Your task to perform on an android device: Open Chrome and go to settings Image 0: 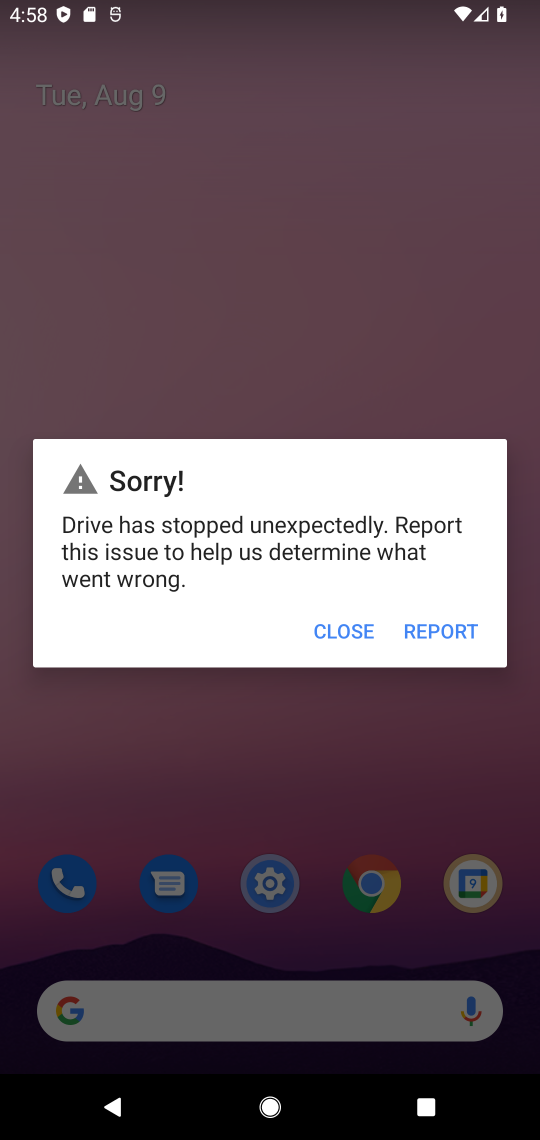
Step 0: click (332, 630)
Your task to perform on an android device: Open Chrome and go to settings Image 1: 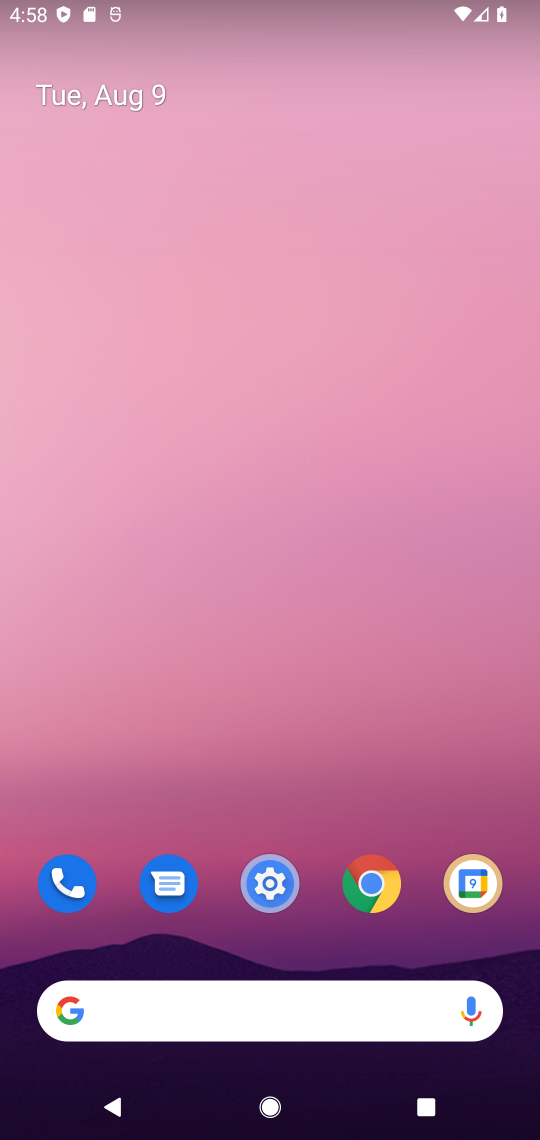
Step 1: click (360, 918)
Your task to perform on an android device: Open Chrome and go to settings Image 2: 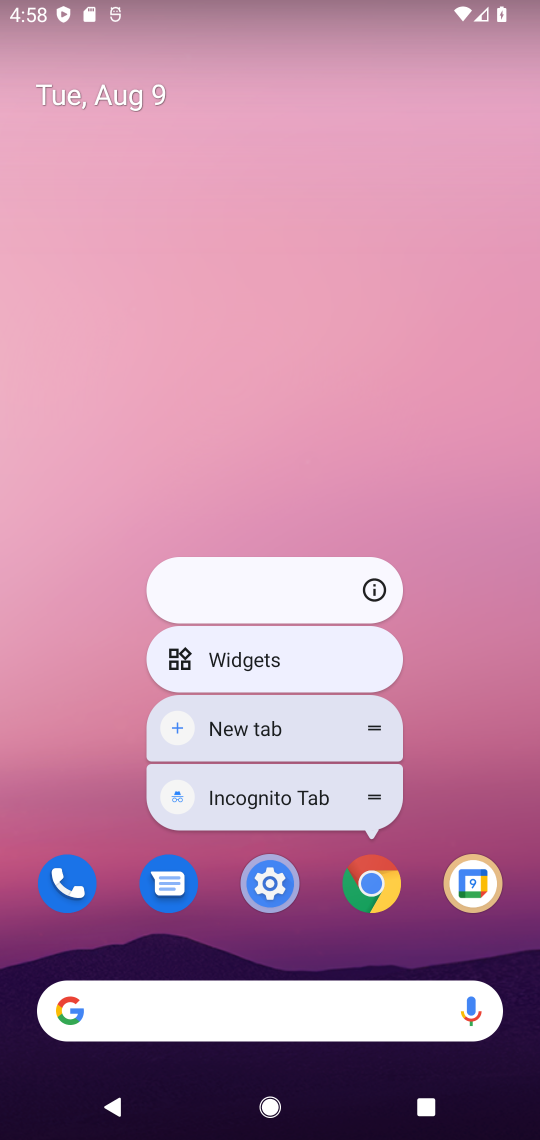
Step 2: click (360, 918)
Your task to perform on an android device: Open Chrome and go to settings Image 3: 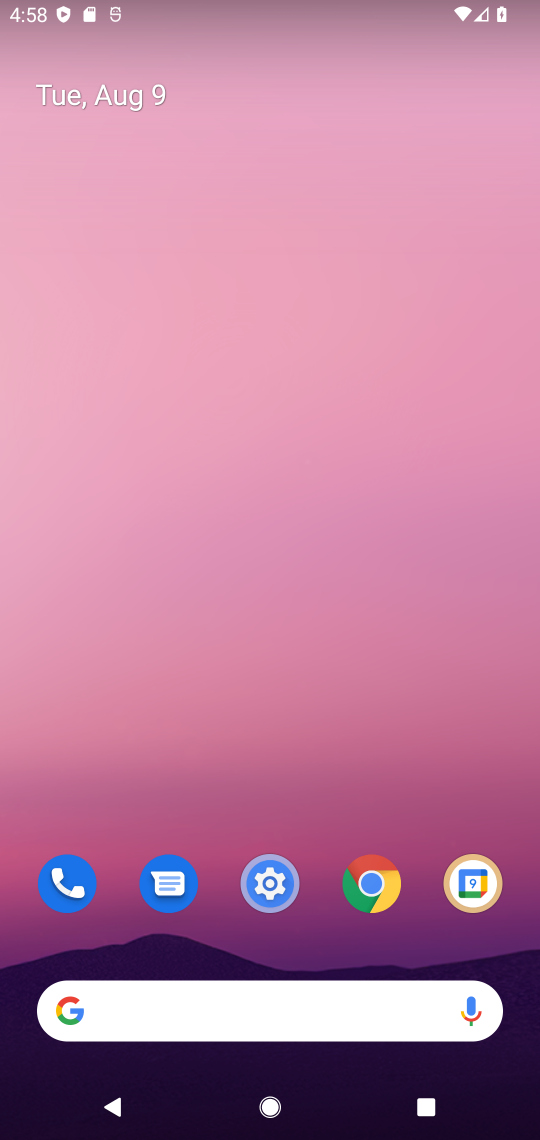
Step 3: click (375, 886)
Your task to perform on an android device: Open Chrome and go to settings Image 4: 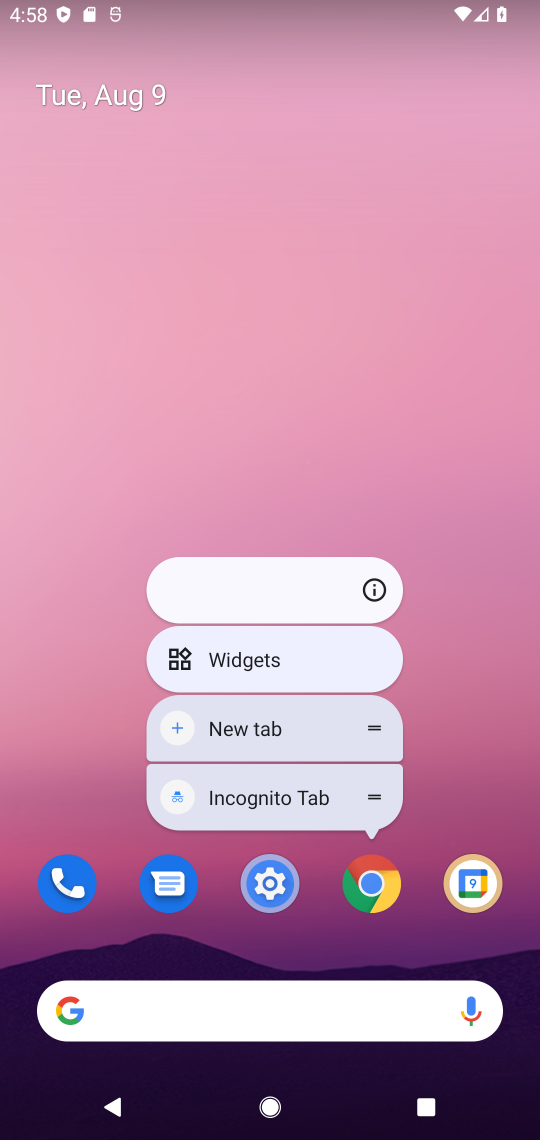
Step 4: click (375, 886)
Your task to perform on an android device: Open Chrome and go to settings Image 5: 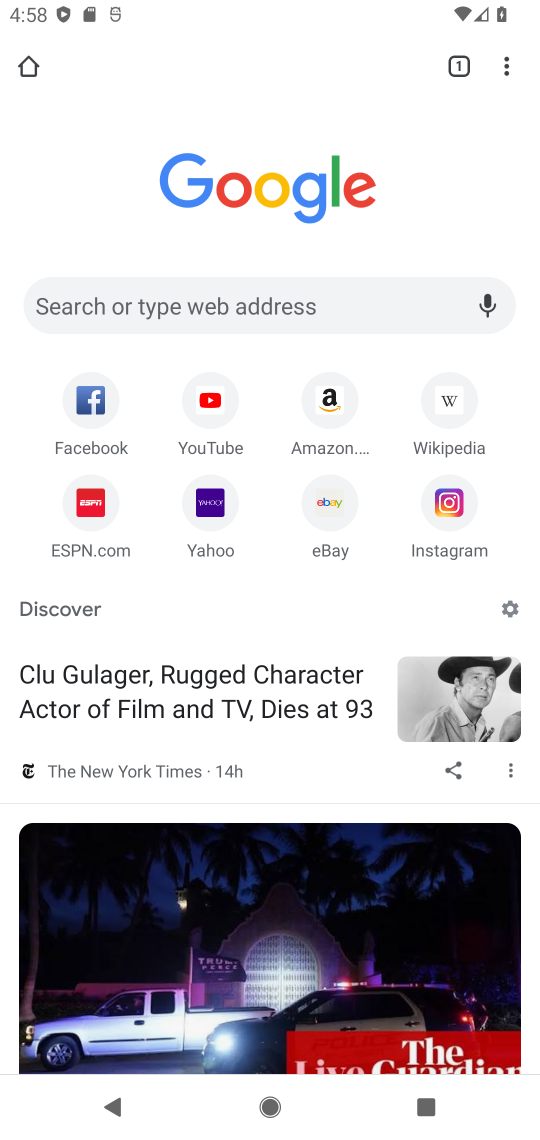
Step 5: click (496, 70)
Your task to perform on an android device: Open Chrome and go to settings Image 6: 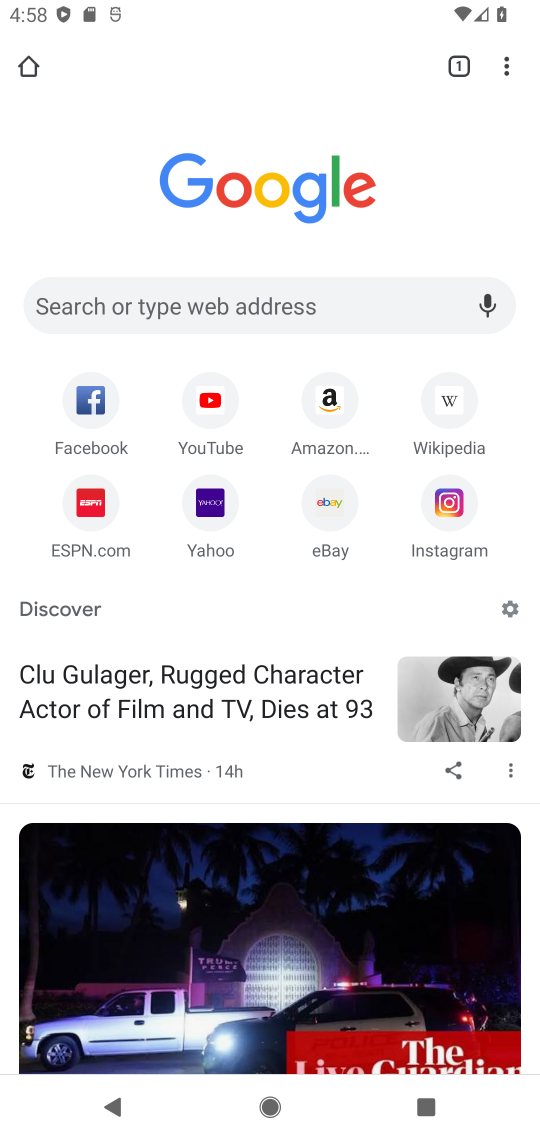
Step 6: click (504, 77)
Your task to perform on an android device: Open Chrome and go to settings Image 7: 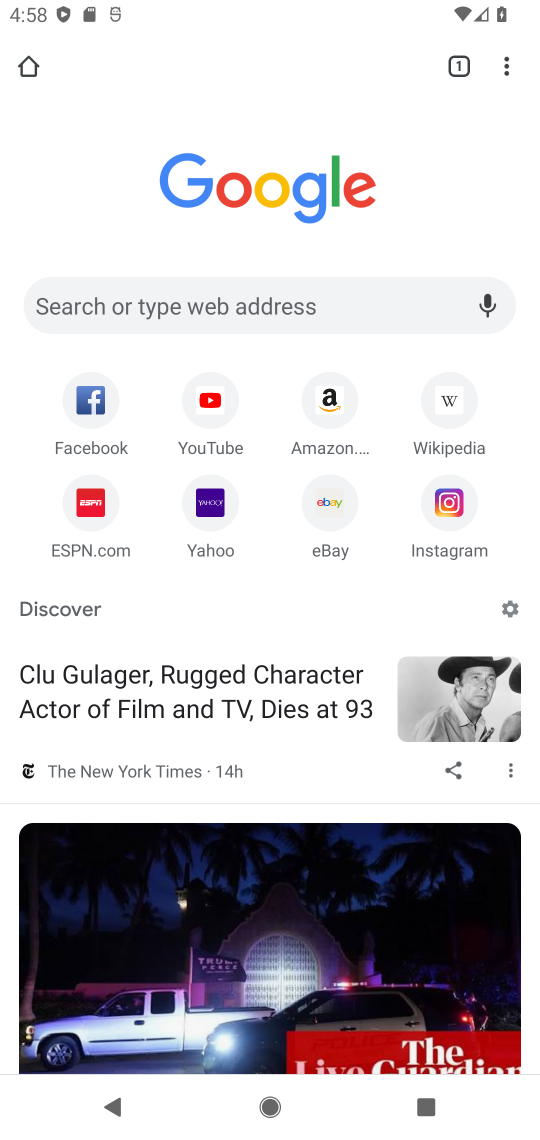
Step 7: task complete